Your task to perform on an android device: Clear the cart on amazon. Add bose quietcomfort 35 to the cart on amazon, then select checkout. Image 0: 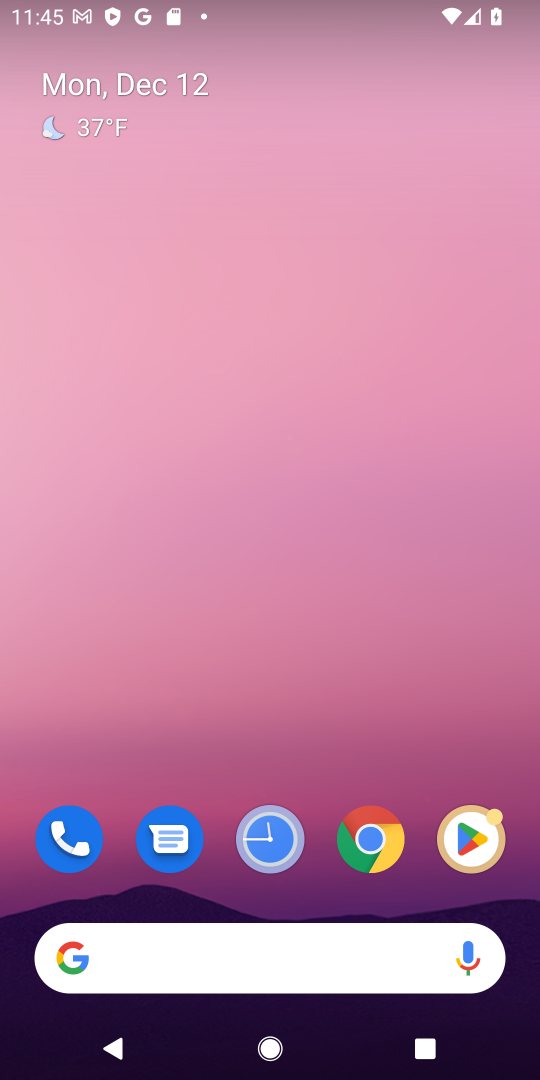
Step 0: click (370, 840)
Your task to perform on an android device: Clear the cart on amazon. Add bose quietcomfort 35 to the cart on amazon, then select checkout. Image 1: 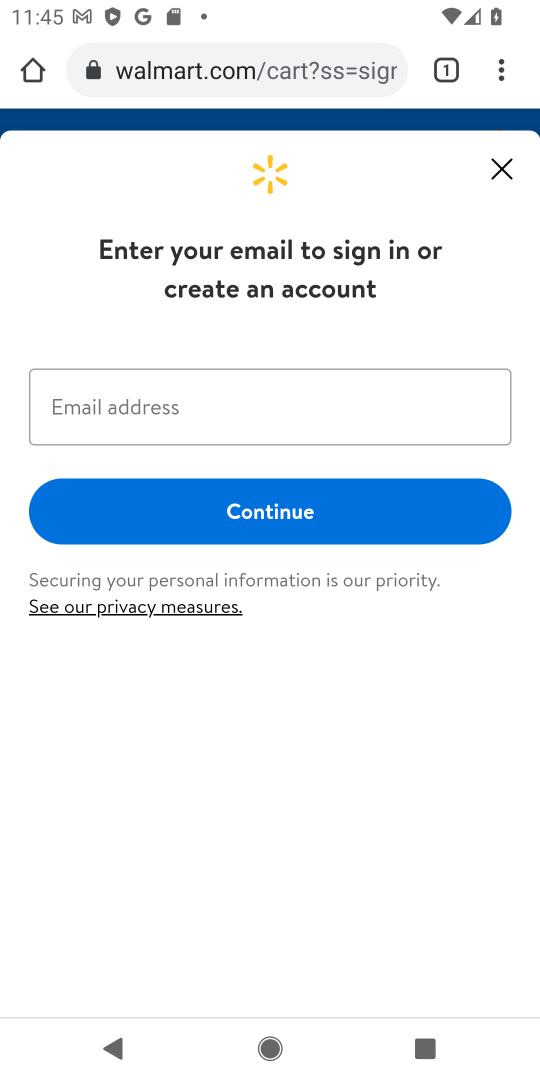
Step 1: click (280, 68)
Your task to perform on an android device: Clear the cart on amazon. Add bose quietcomfort 35 to the cart on amazon, then select checkout. Image 2: 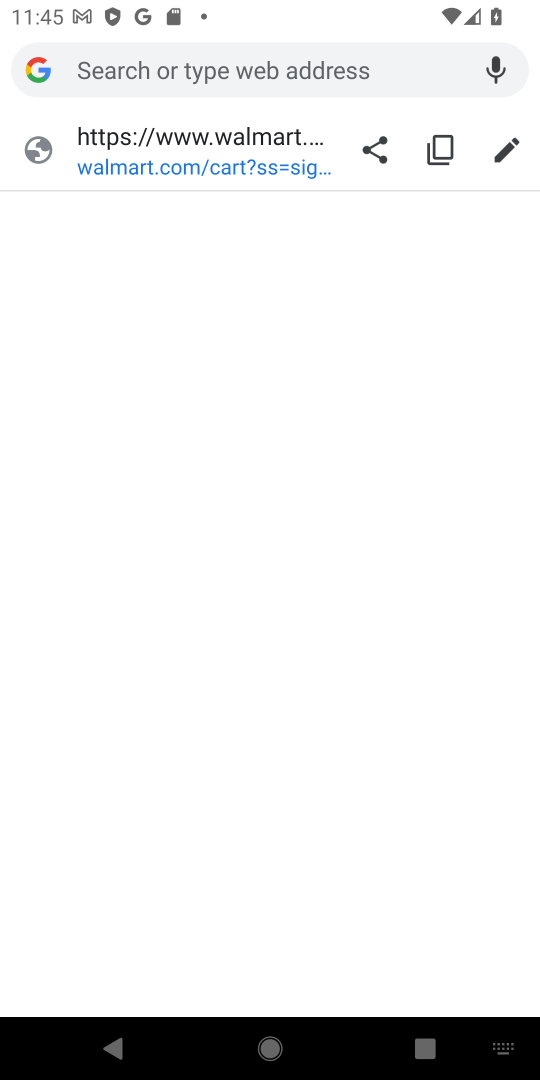
Step 2: type "amazon"
Your task to perform on an android device: Clear the cart on amazon. Add bose quietcomfort 35 to the cart on amazon, then select checkout. Image 3: 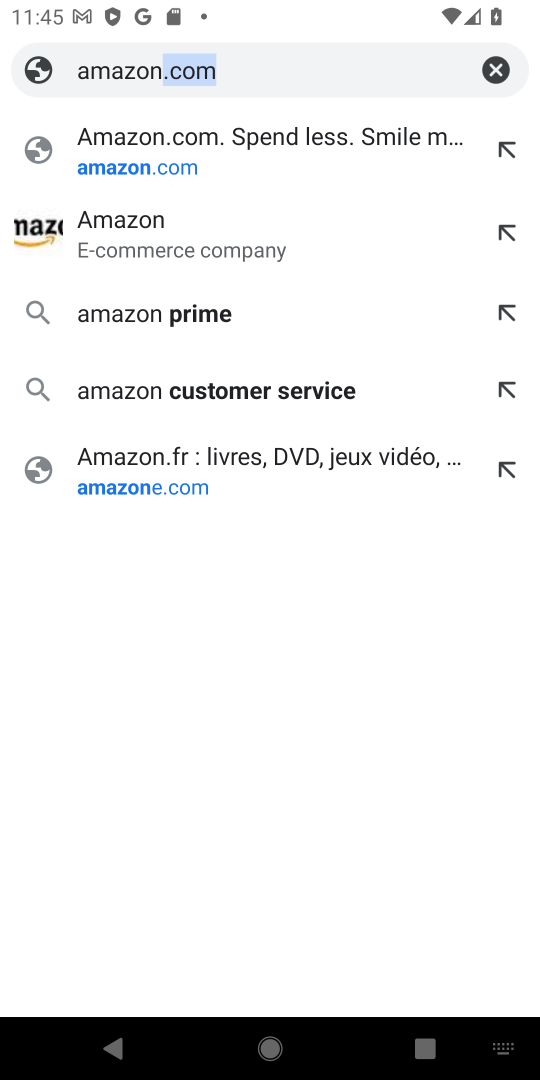
Step 3: click (119, 227)
Your task to perform on an android device: Clear the cart on amazon. Add bose quietcomfort 35 to the cart on amazon, then select checkout. Image 4: 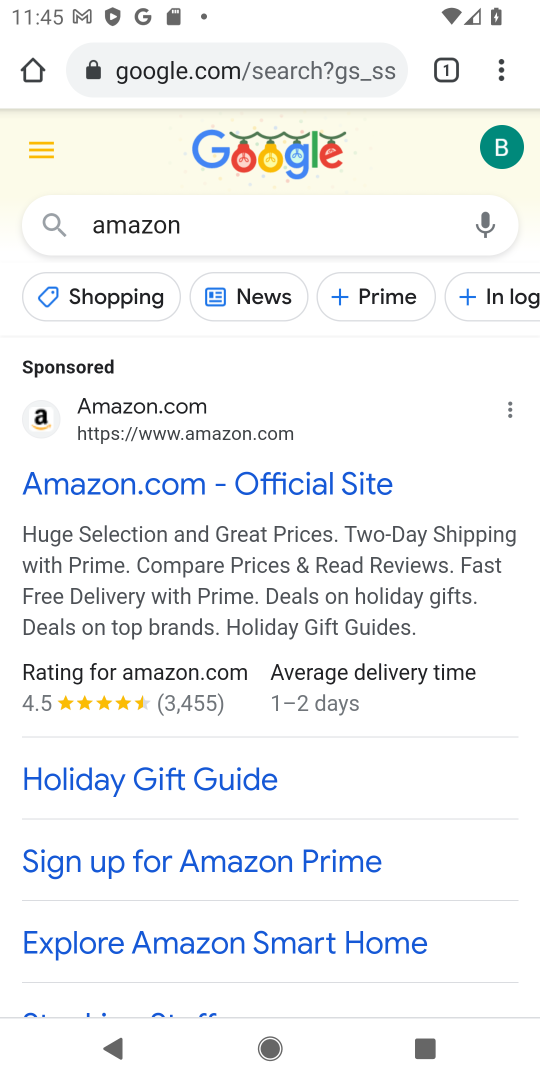
Step 4: drag from (244, 663) to (332, 276)
Your task to perform on an android device: Clear the cart on amazon. Add bose quietcomfort 35 to the cart on amazon, then select checkout. Image 5: 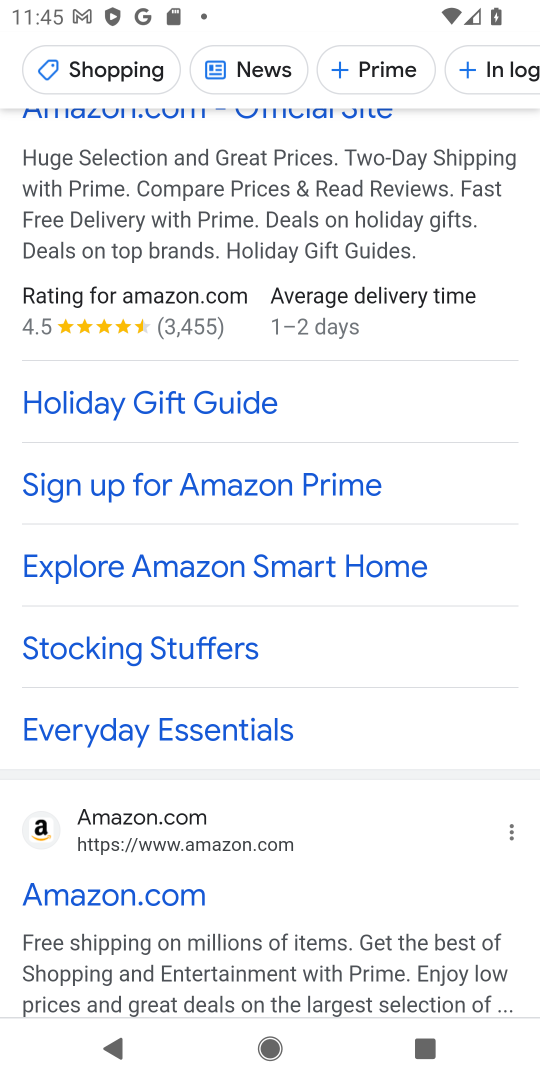
Step 5: click (135, 863)
Your task to perform on an android device: Clear the cart on amazon. Add bose quietcomfort 35 to the cart on amazon, then select checkout. Image 6: 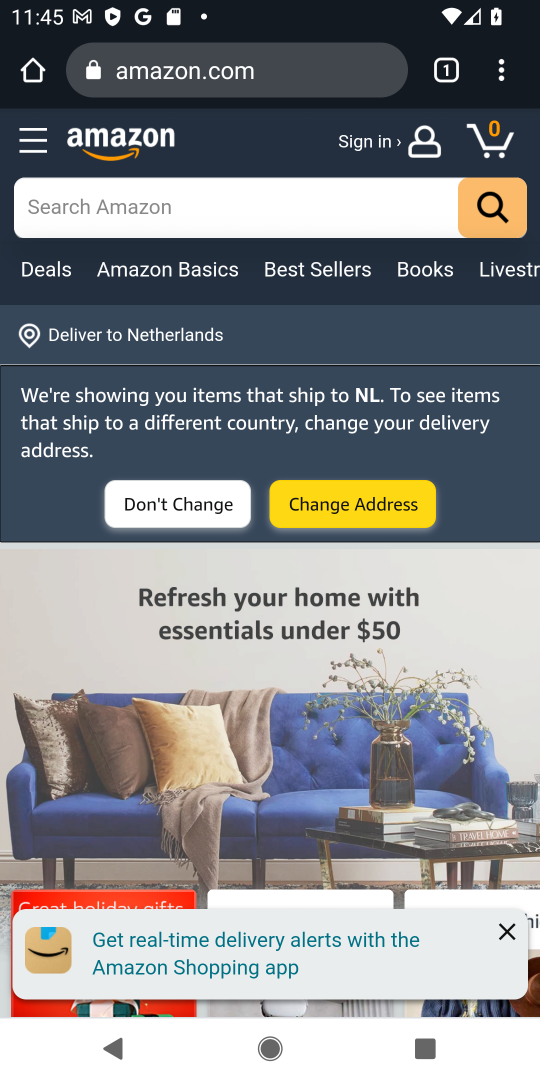
Step 6: click (497, 134)
Your task to perform on an android device: Clear the cart on amazon. Add bose quietcomfort 35 to the cart on amazon, then select checkout. Image 7: 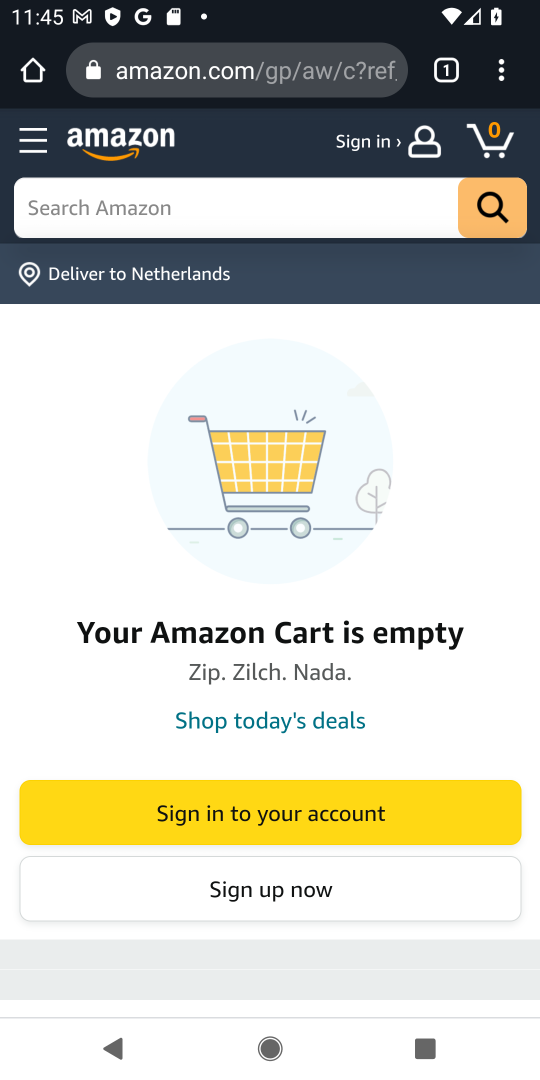
Step 7: click (232, 210)
Your task to perform on an android device: Clear the cart on amazon. Add bose quietcomfort 35 to the cart on amazon, then select checkout. Image 8: 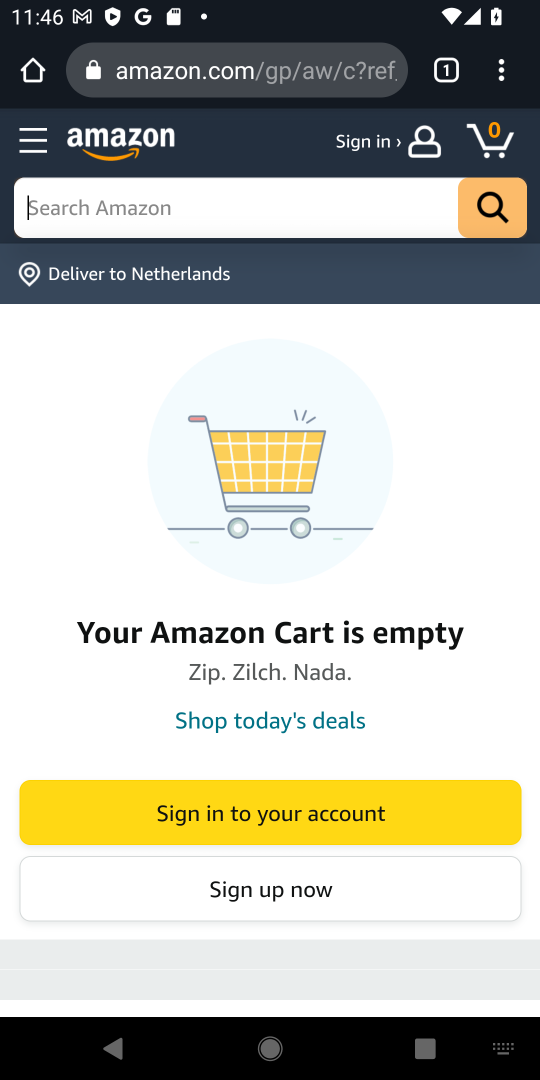
Step 8: type "bose quietcomfort 35"
Your task to perform on an android device: Clear the cart on amazon. Add bose quietcomfort 35 to the cart on amazon, then select checkout. Image 9: 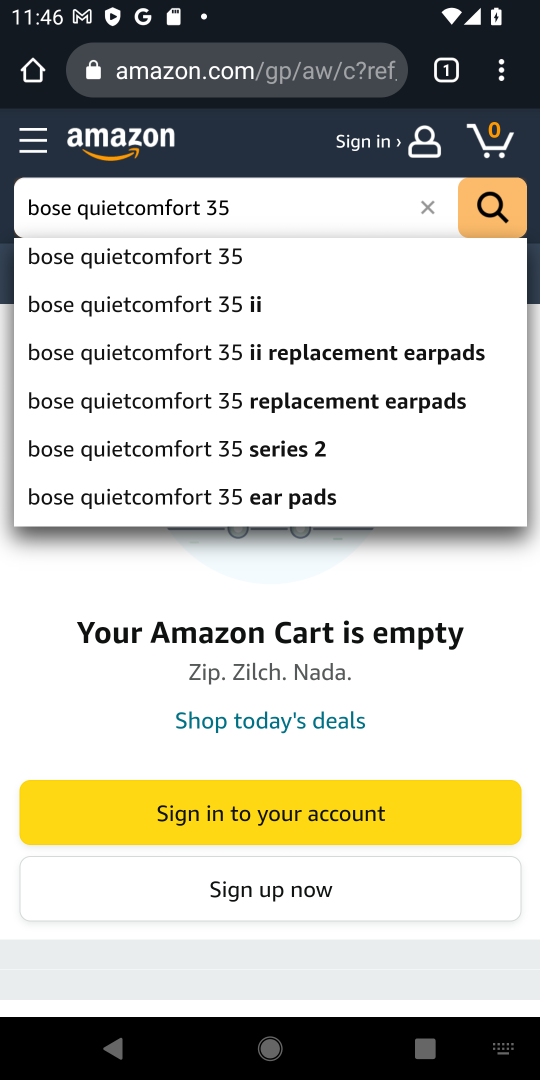
Step 9: click (121, 257)
Your task to perform on an android device: Clear the cart on amazon. Add bose quietcomfort 35 to the cart on amazon, then select checkout. Image 10: 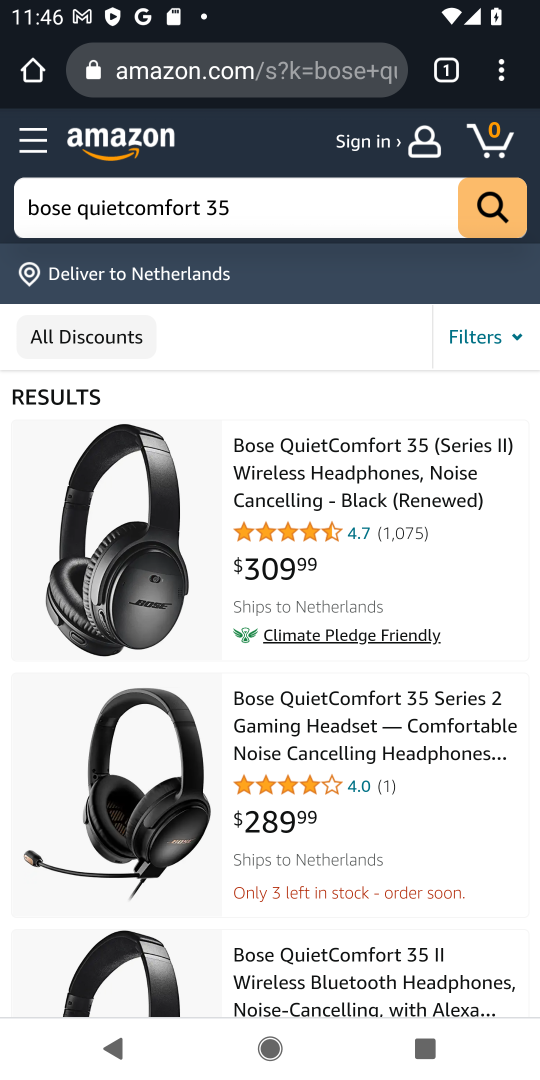
Step 10: click (324, 461)
Your task to perform on an android device: Clear the cart on amazon. Add bose quietcomfort 35 to the cart on amazon, then select checkout. Image 11: 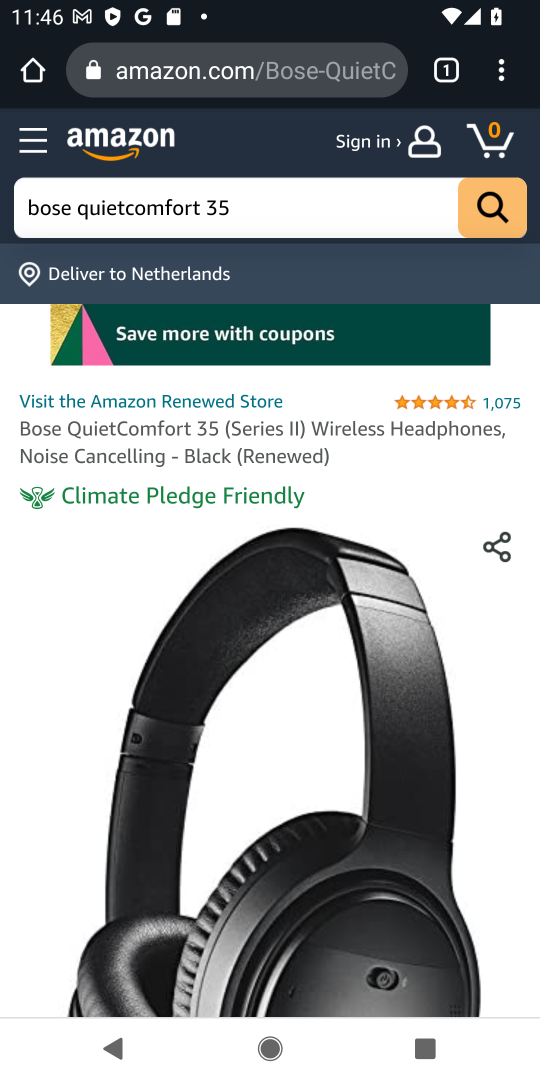
Step 11: drag from (243, 743) to (282, 314)
Your task to perform on an android device: Clear the cart on amazon. Add bose quietcomfort 35 to the cart on amazon, then select checkout. Image 12: 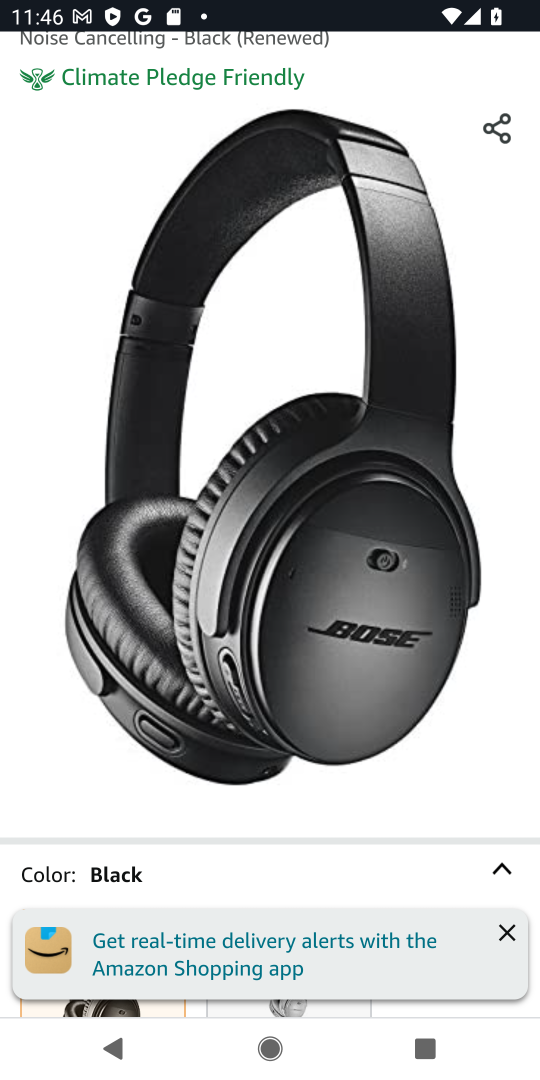
Step 12: drag from (76, 754) to (141, 258)
Your task to perform on an android device: Clear the cart on amazon. Add bose quietcomfort 35 to the cart on amazon, then select checkout. Image 13: 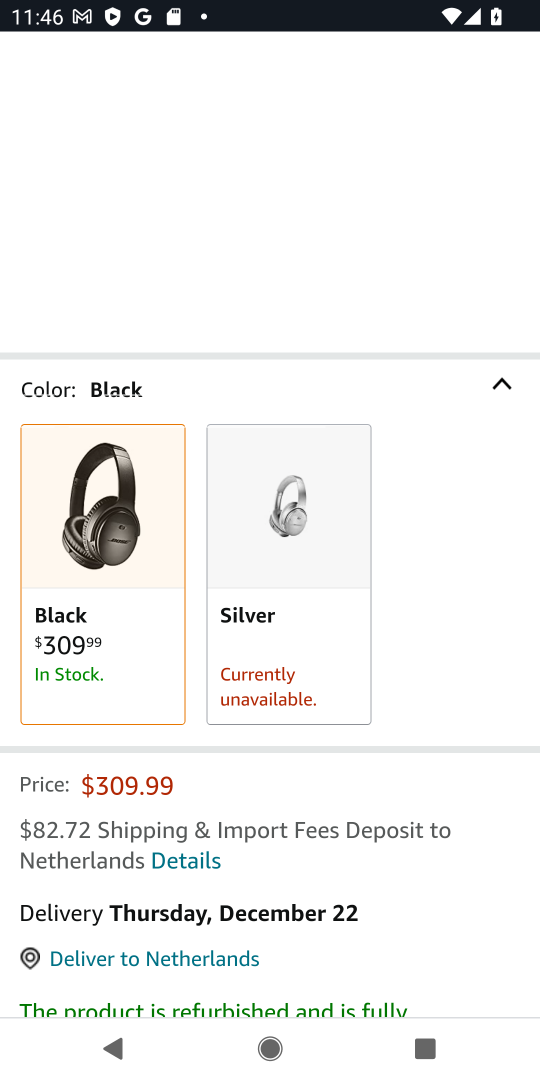
Step 13: drag from (205, 881) to (225, 383)
Your task to perform on an android device: Clear the cart on amazon. Add bose quietcomfort 35 to the cart on amazon, then select checkout. Image 14: 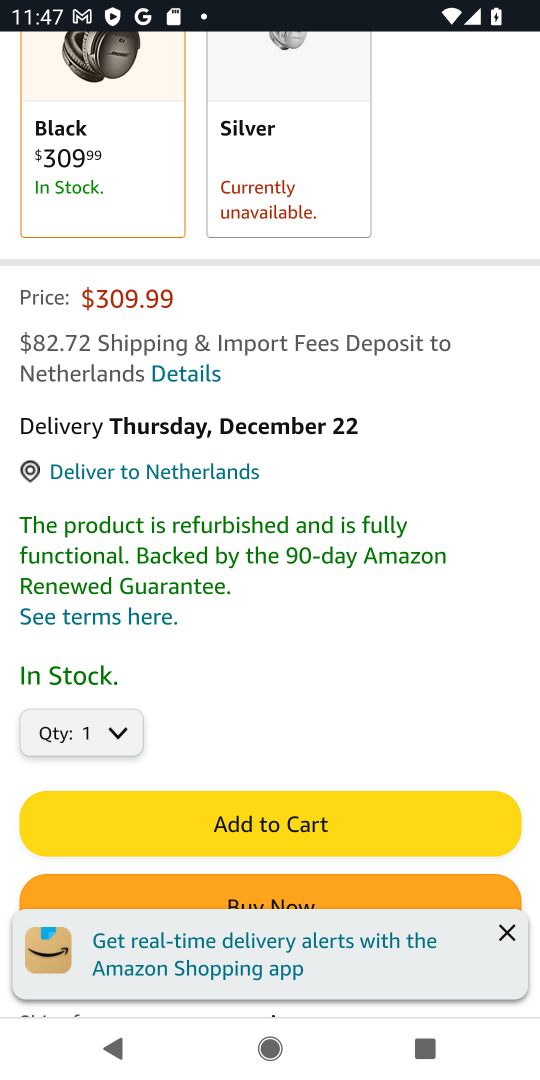
Step 14: click (268, 815)
Your task to perform on an android device: Clear the cart on amazon. Add bose quietcomfort 35 to the cart on amazon, then select checkout. Image 15: 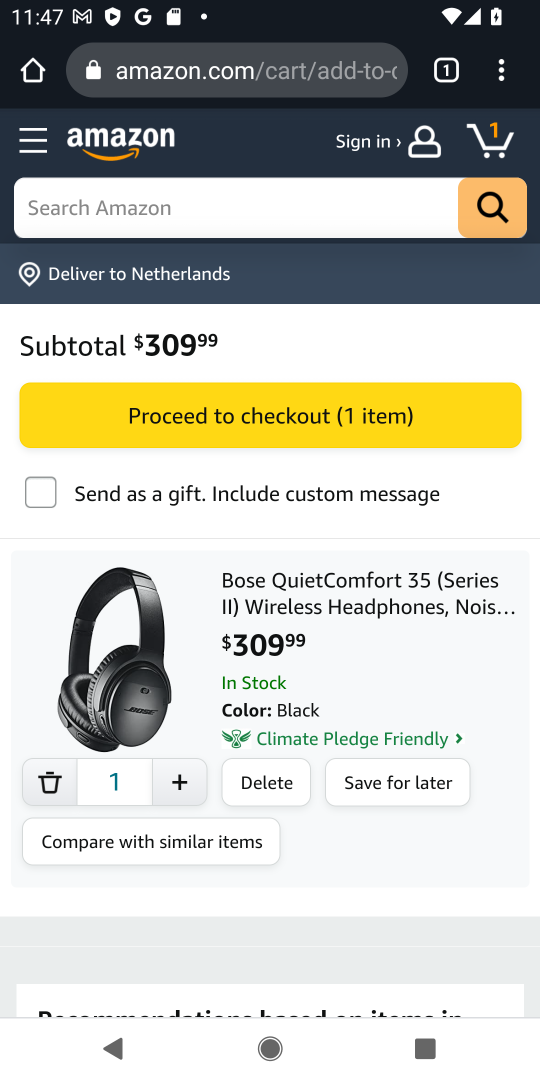
Step 15: click (275, 424)
Your task to perform on an android device: Clear the cart on amazon. Add bose quietcomfort 35 to the cart on amazon, then select checkout. Image 16: 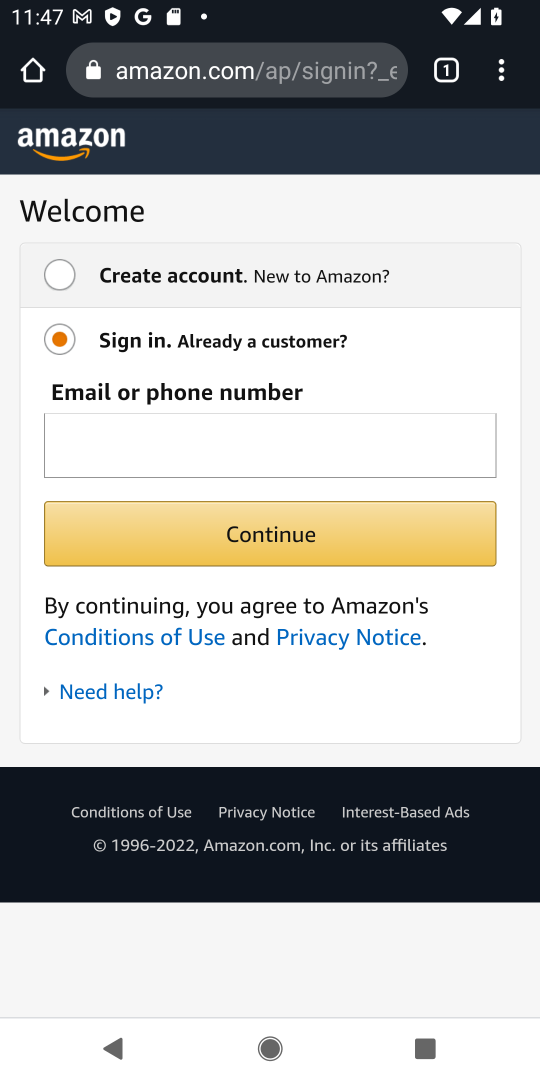
Step 16: task complete